Your task to perform on an android device: Go to Maps Image 0: 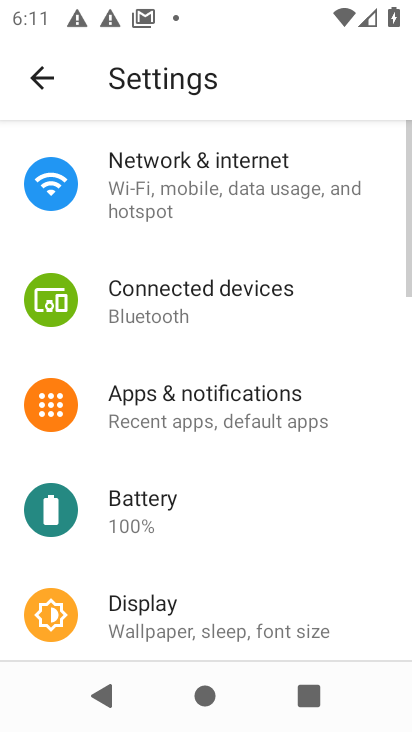
Step 0: press back button
Your task to perform on an android device: Go to Maps Image 1: 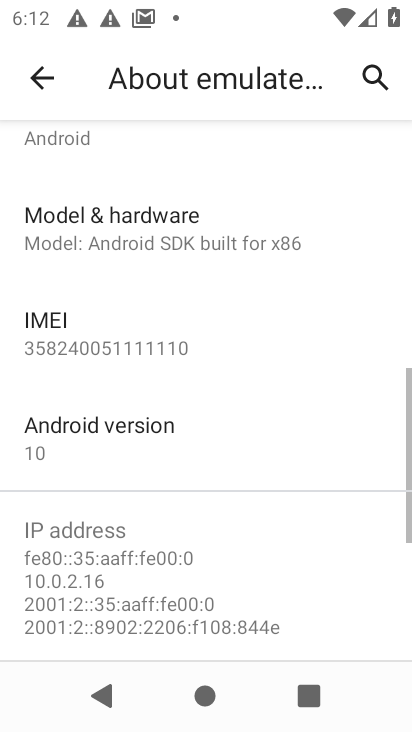
Step 1: press back button
Your task to perform on an android device: Go to Maps Image 2: 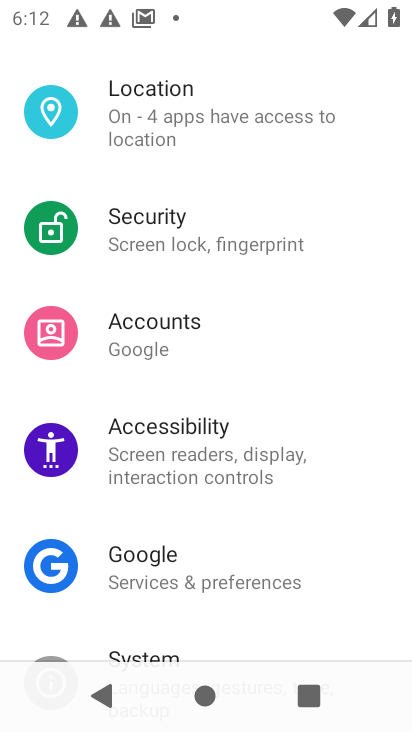
Step 2: press back button
Your task to perform on an android device: Go to Maps Image 3: 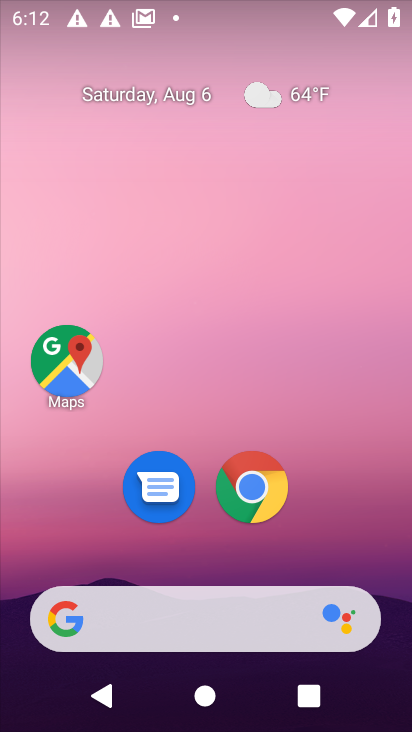
Step 3: click (65, 375)
Your task to perform on an android device: Go to Maps Image 4: 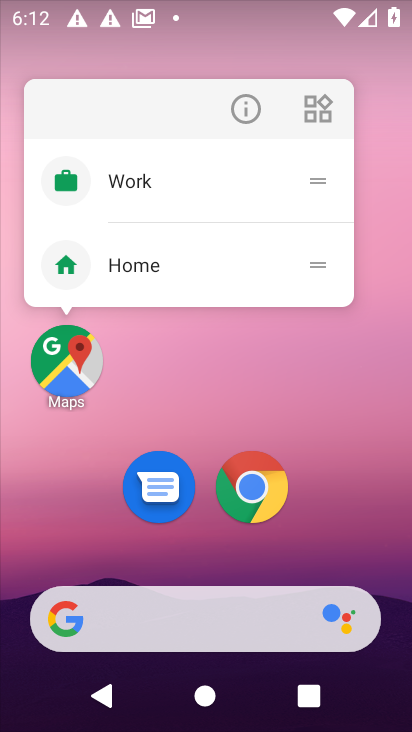
Step 4: click (66, 386)
Your task to perform on an android device: Go to Maps Image 5: 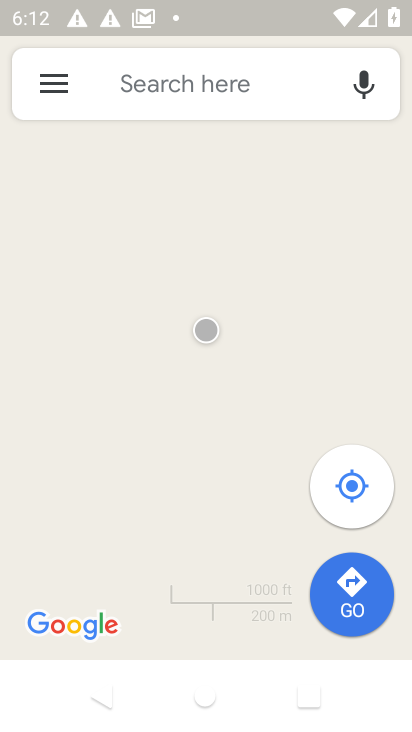
Step 5: task complete